Your task to perform on an android device: add a contact in the contacts app Image 0: 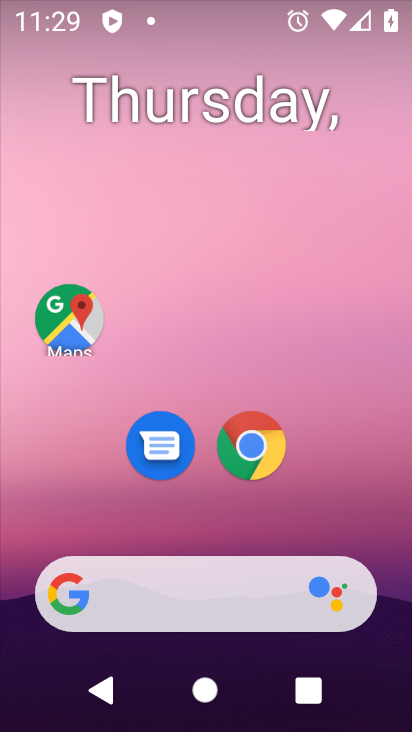
Step 0: drag from (372, 351) to (394, 64)
Your task to perform on an android device: add a contact in the contacts app Image 1: 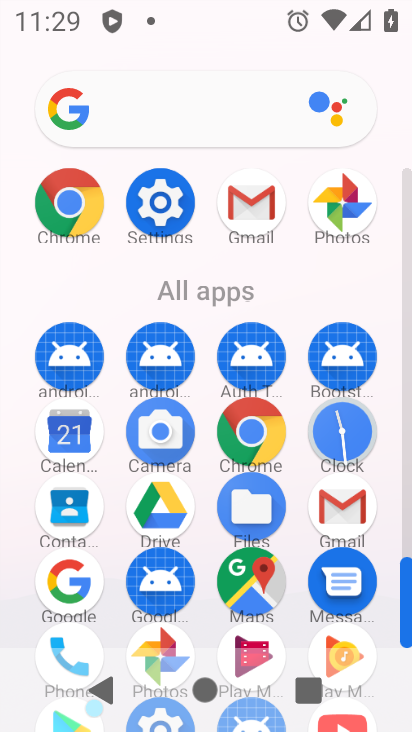
Step 1: click (67, 504)
Your task to perform on an android device: add a contact in the contacts app Image 2: 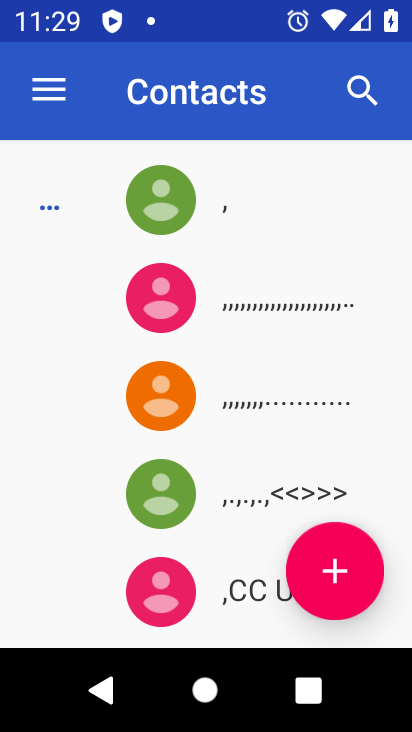
Step 2: click (329, 576)
Your task to perform on an android device: add a contact in the contacts app Image 3: 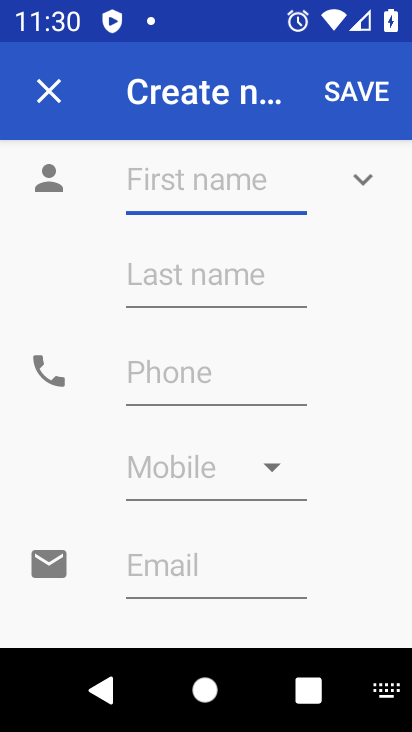
Step 3: type "ghans"
Your task to perform on an android device: add a contact in the contacts app Image 4: 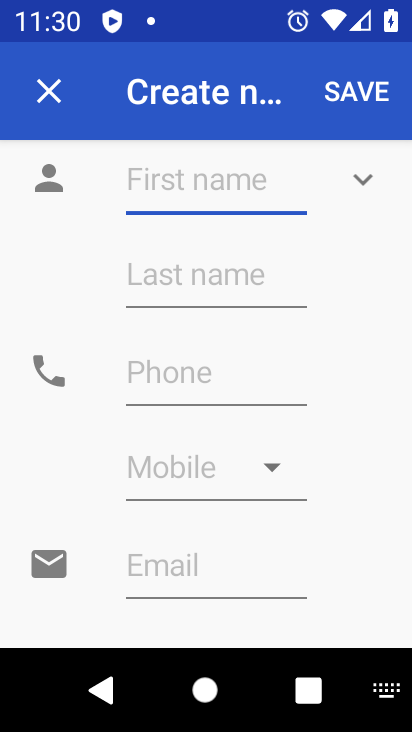
Step 4: click (234, 394)
Your task to perform on an android device: add a contact in the contacts app Image 5: 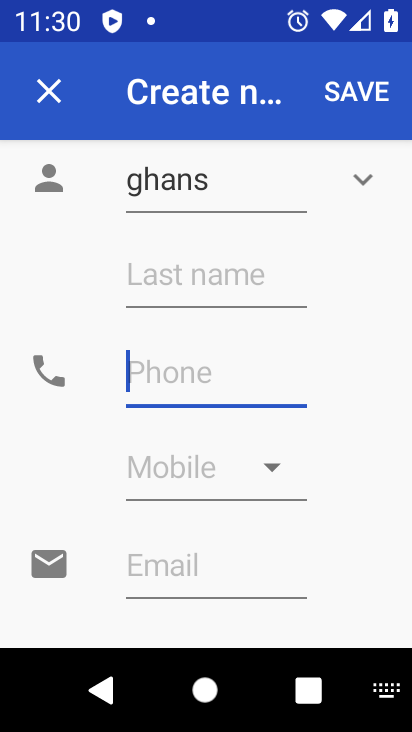
Step 5: type "6474484848"
Your task to perform on an android device: add a contact in the contacts app Image 6: 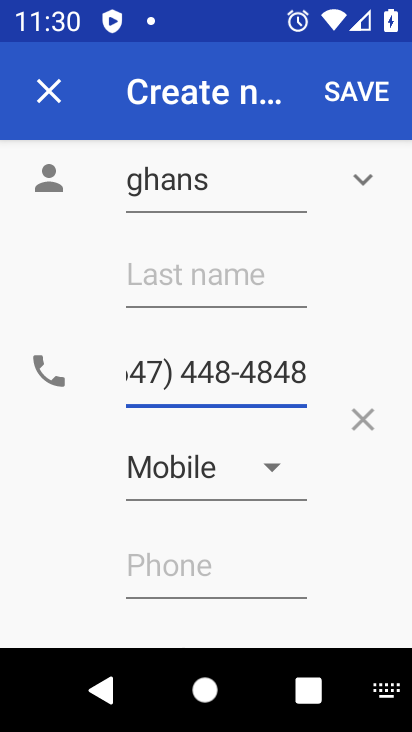
Step 6: click (343, 96)
Your task to perform on an android device: add a contact in the contacts app Image 7: 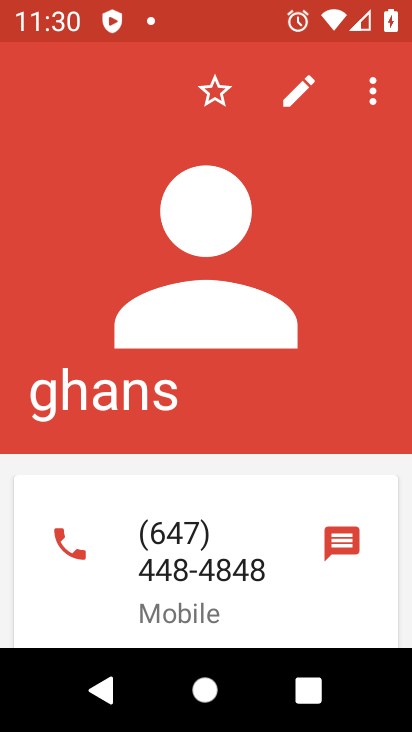
Step 7: task complete